Your task to perform on an android device: Open accessibility settings Image 0: 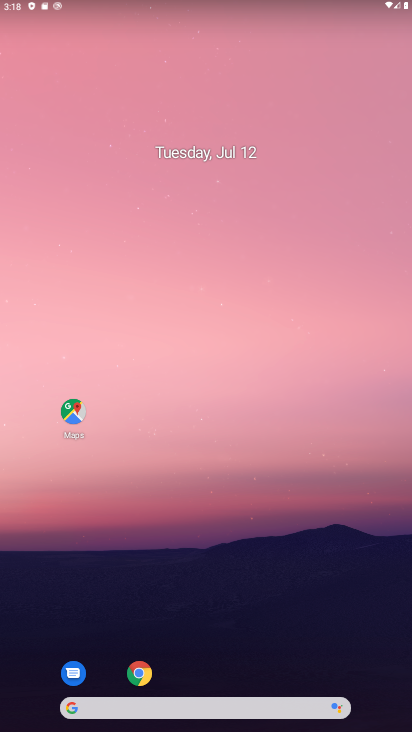
Step 0: drag from (172, 708) to (242, 86)
Your task to perform on an android device: Open accessibility settings Image 1: 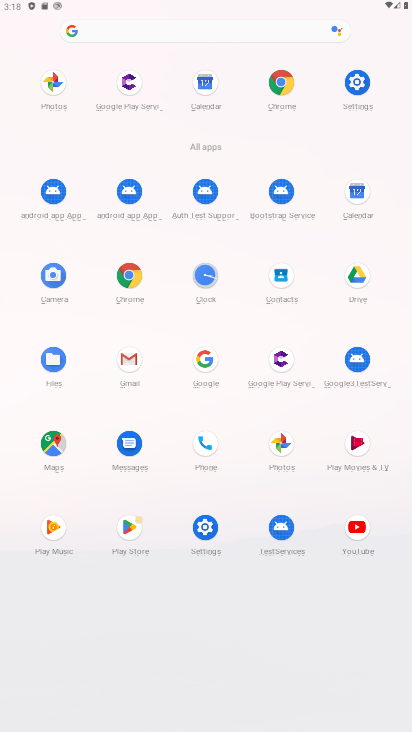
Step 1: click (357, 83)
Your task to perform on an android device: Open accessibility settings Image 2: 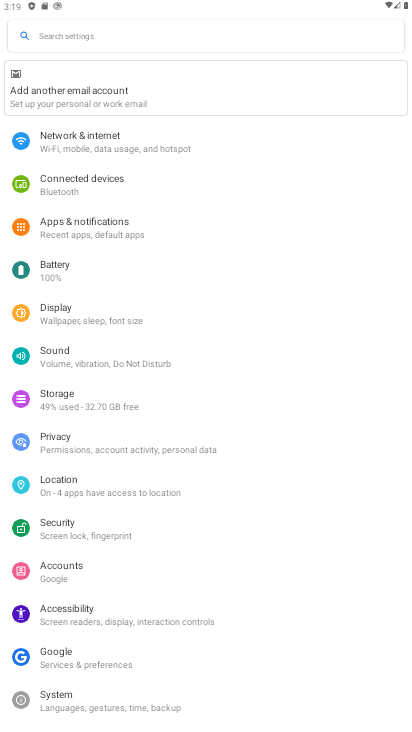
Step 2: click (101, 611)
Your task to perform on an android device: Open accessibility settings Image 3: 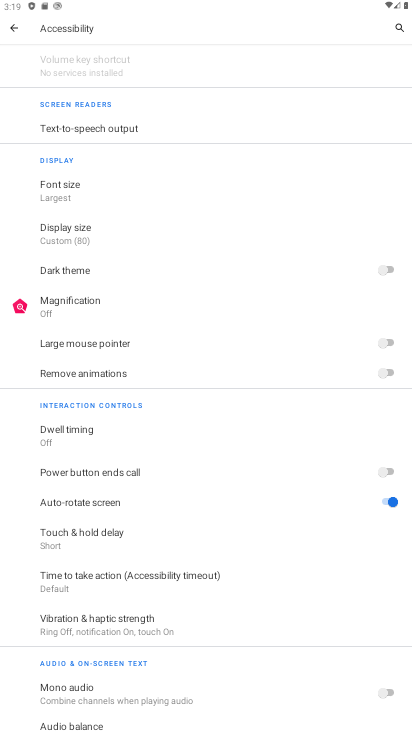
Step 3: task complete